Your task to perform on an android device: turn off priority inbox in the gmail app Image 0: 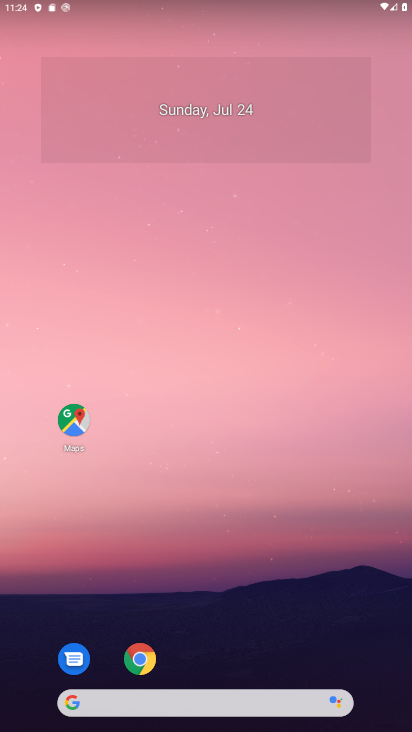
Step 0: drag from (31, 630) to (153, 216)
Your task to perform on an android device: turn off priority inbox in the gmail app Image 1: 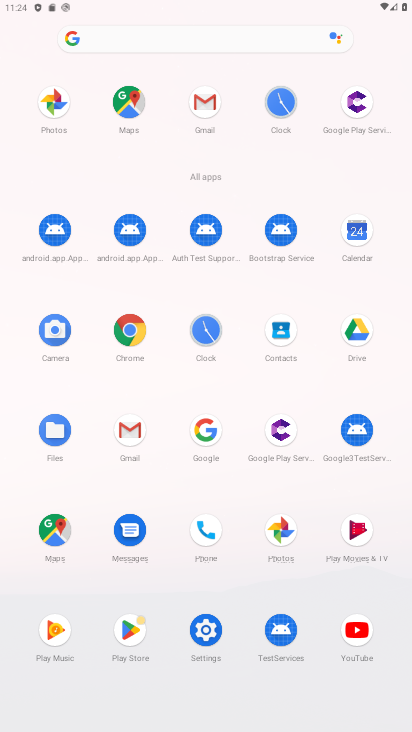
Step 1: click (147, 443)
Your task to perform on an android device: turn off priority inbox in the gmail app Image 2: 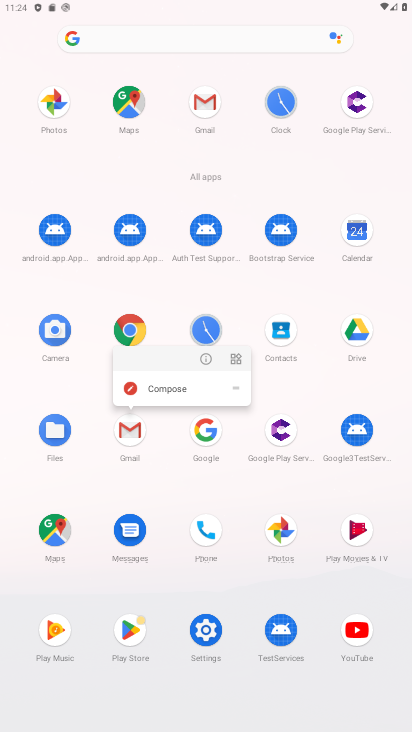
Step 2: click (133, 418)
Your task to perform on an android device: turn off priority inbox in the gmail app Image 3: 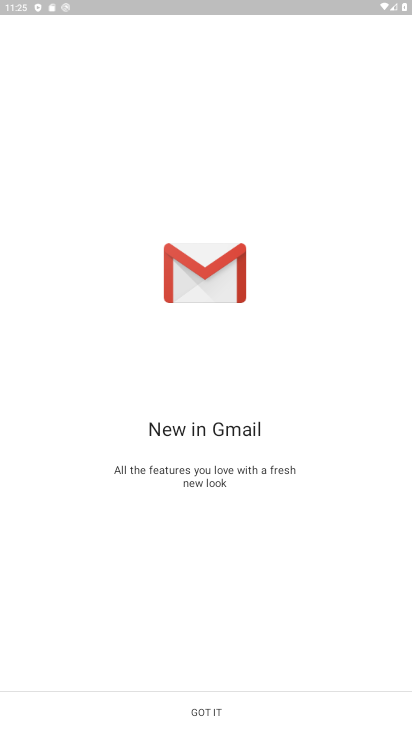
Step 3: click (200, 713)
Your task to perform on an android device: turn off priority inbox in the gmail app Image 4: 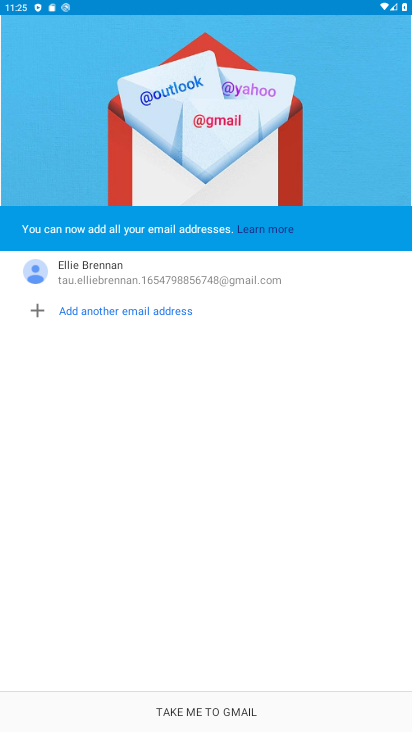
Step 4: click (165, 708)
Your task to perform on an android device: turn off priority inbox in the gmail app Image 5: 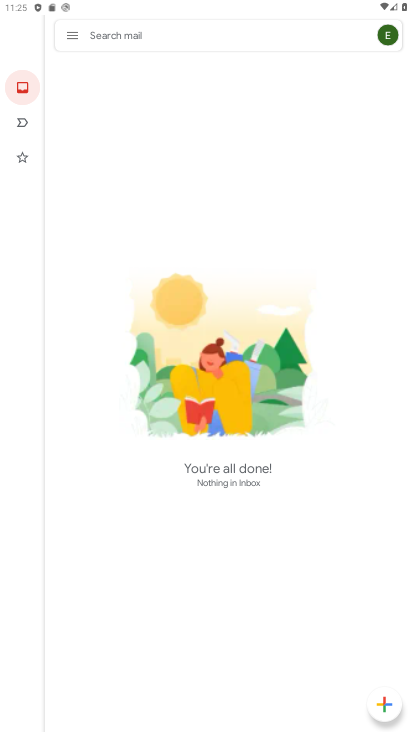
Step 5: click (73, 30)
Your task to perform on an android device: turn off priority inbox in the gmail app Image 6: 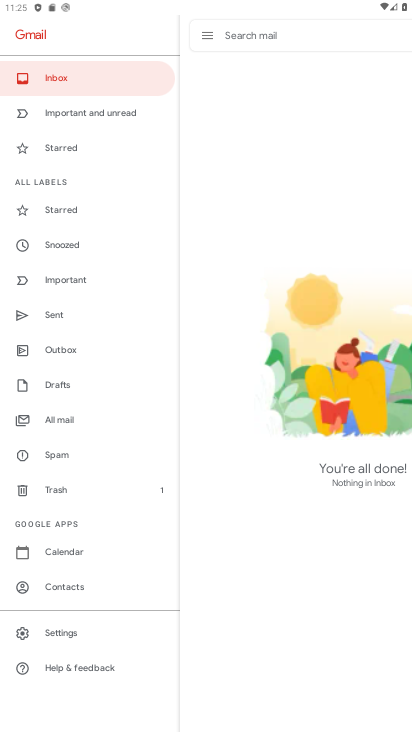
Step 6: click (80, 634)
Your task to perform on an android device: turn off priority inbox in the gmail app Image 7: 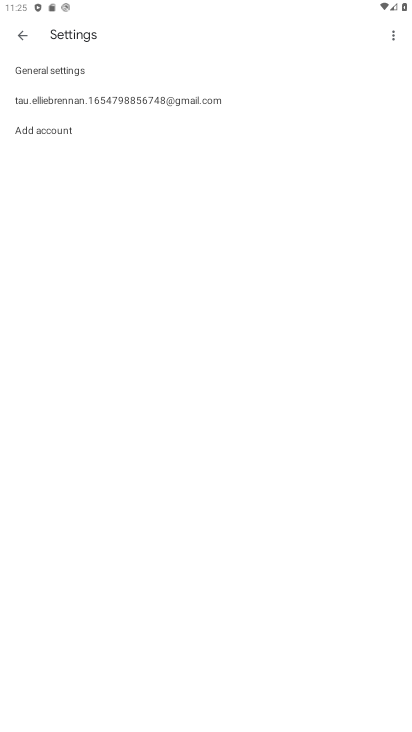
Step 7: click (82, 95)
Your task to perform on an android device: turn off priority inbox in the gmail app Image 8: 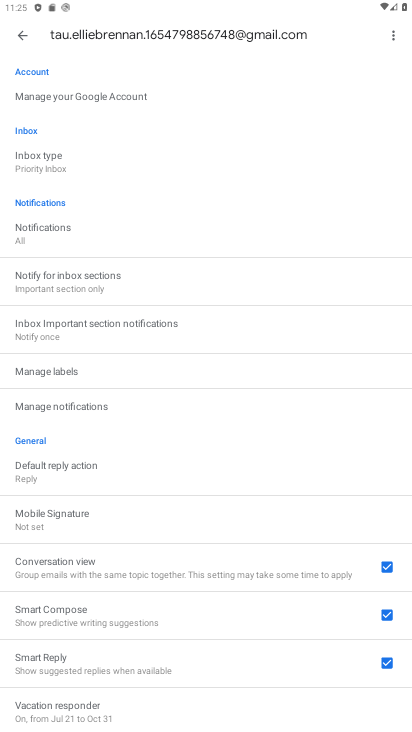
Step 8: task complete